Your task to perform on an android device: Search for hotels in Sydney Image 0: 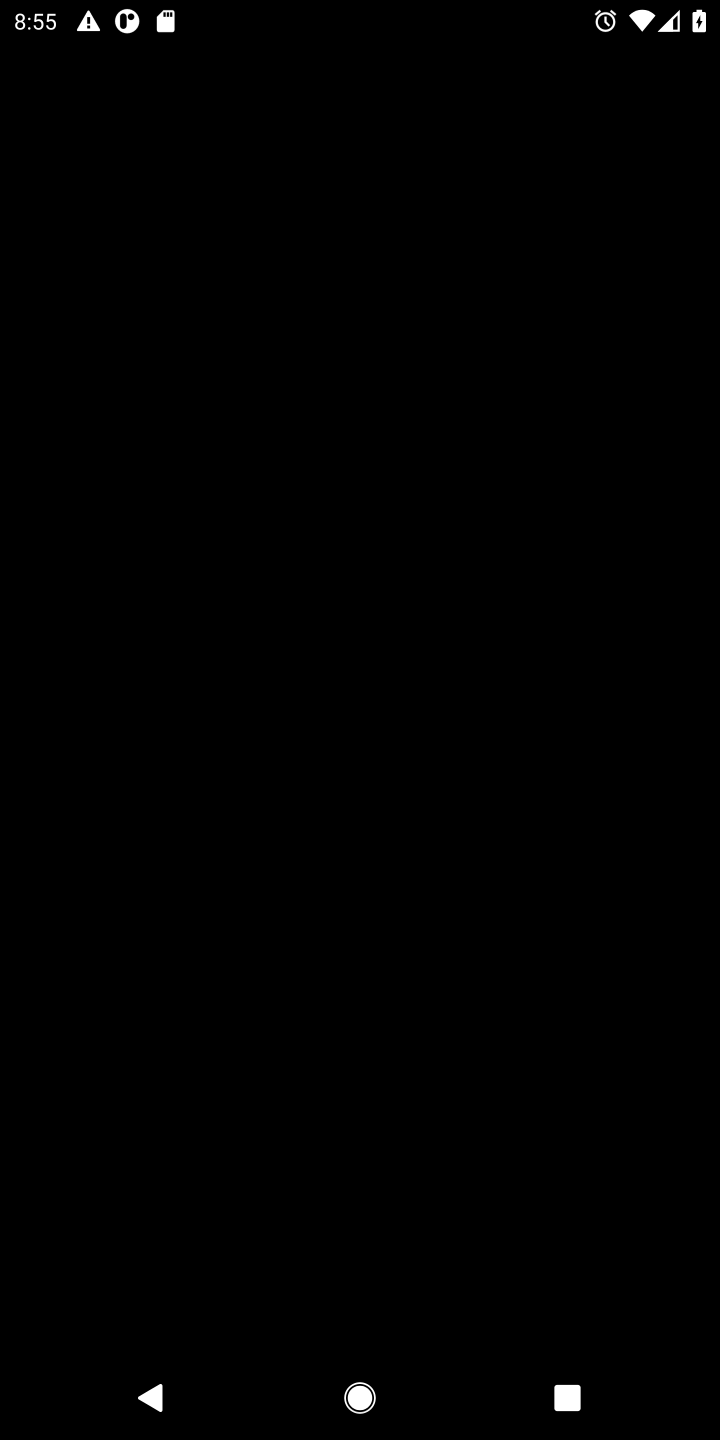
Step 0: press home button
Your task to perform on an android device: Search for hotels in Sydney Image 1: 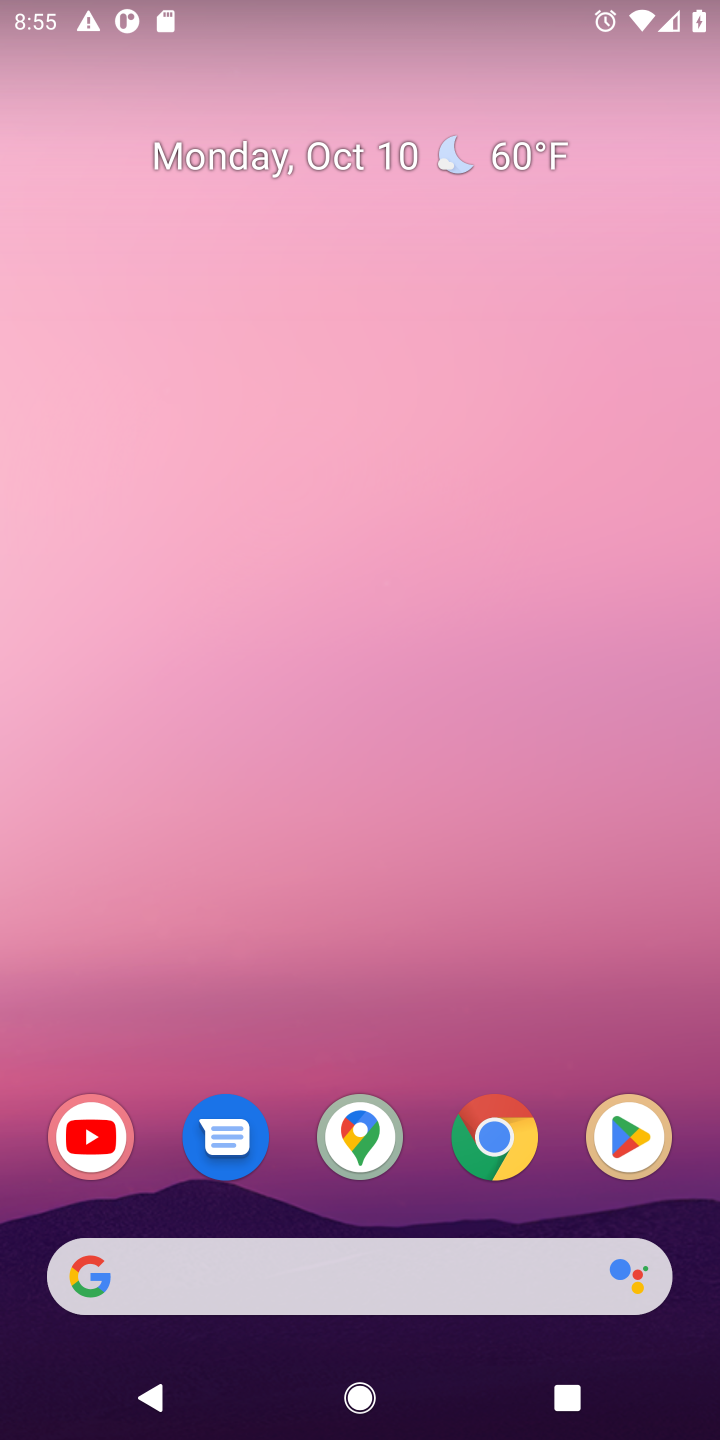
Step 1: click (487, 1145)
Your task to perform on an android device: Search for hotels in Sydney Image 2: 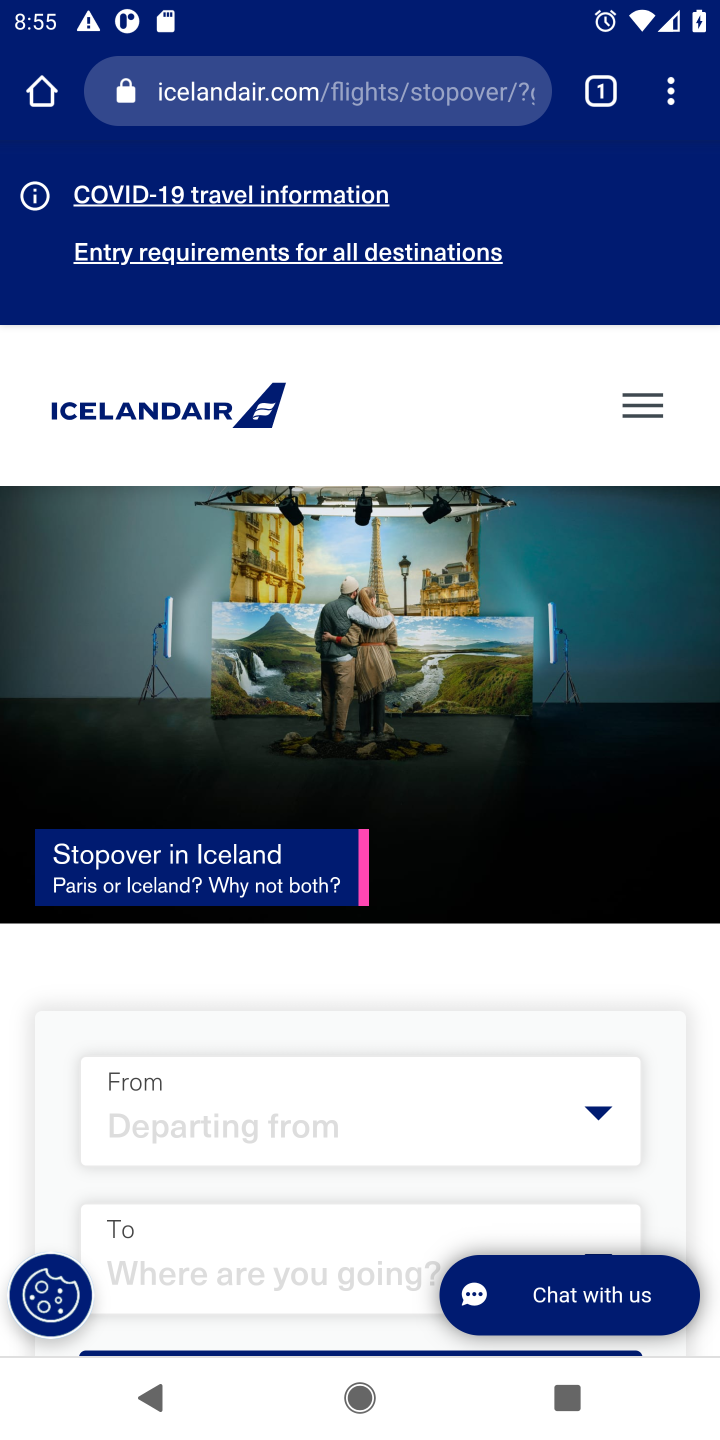
Step 2: click (339, 70)
Your task to perform on an android device: Search for hotels in Sydney Image 3: 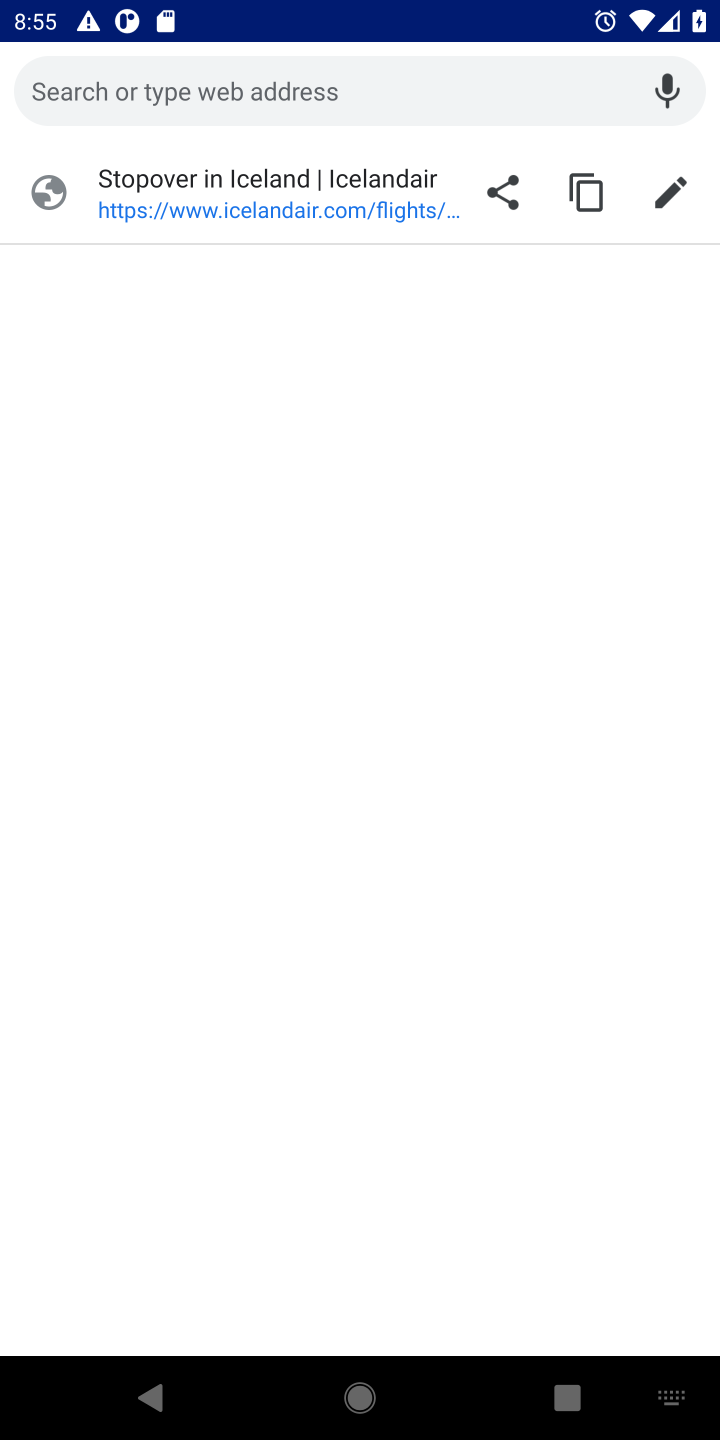
Step 3: type "hotels in sydney"
Your task to perform on an android device: Search for hotels in Sydney Image 4: 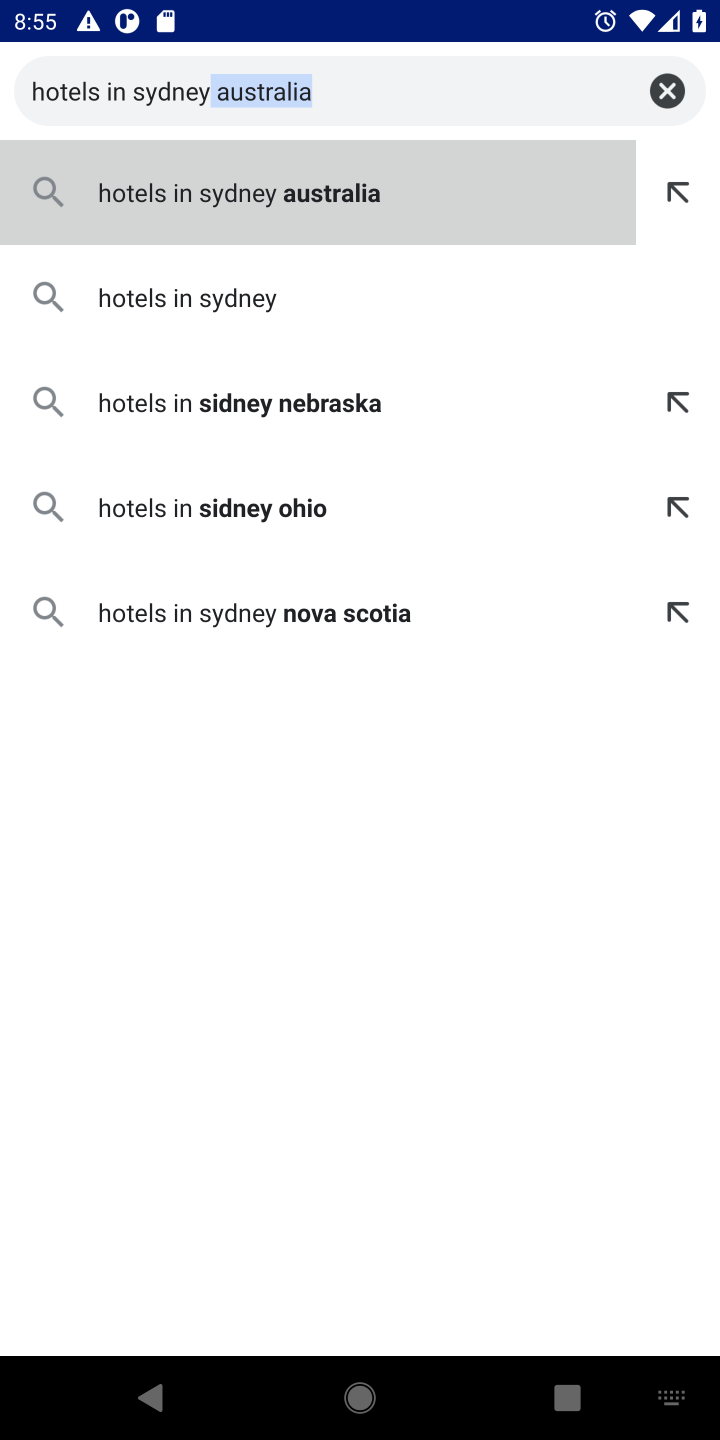
Step 4: click (133, 292)
Your task to perform on an android device: Search for hotels in Sydney Image 5: 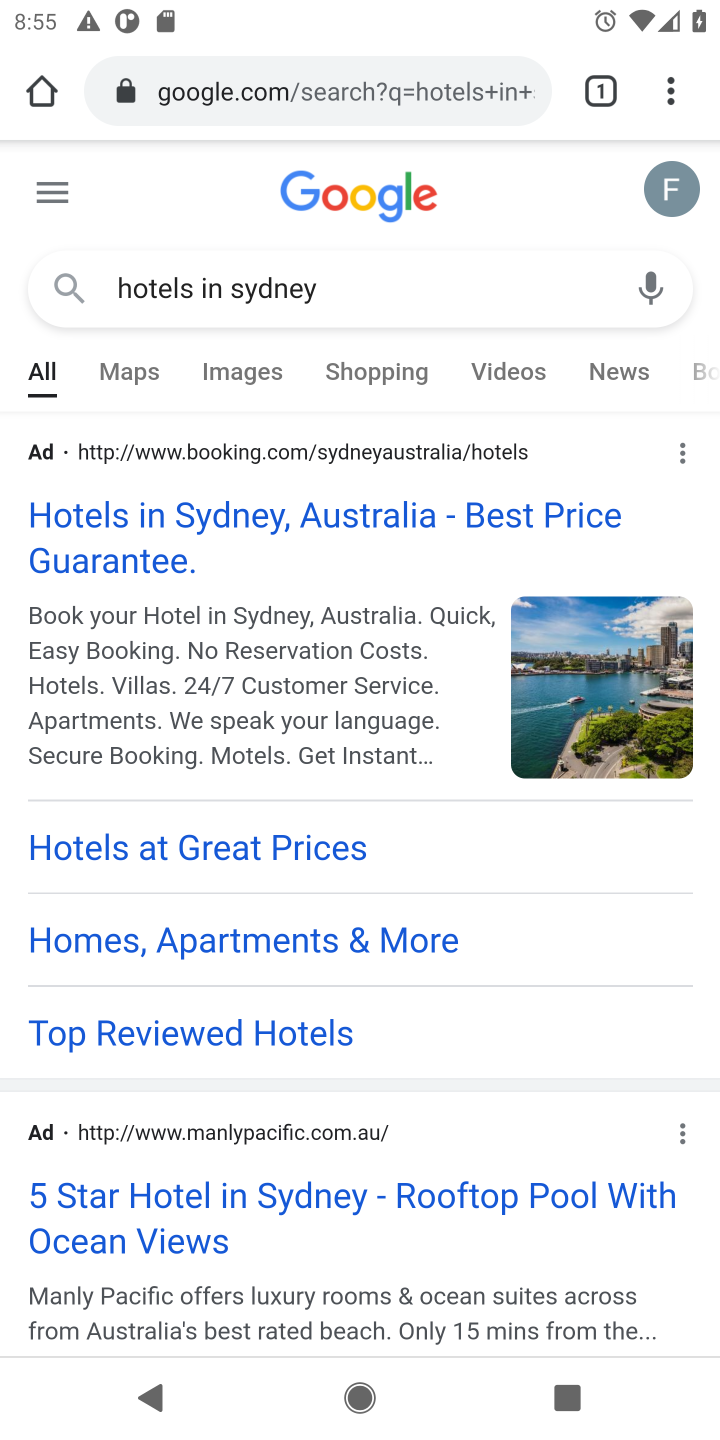
Step 5: click (109, 528)
Your task to perform on an android device: Search for hotels in Sydney Image 6: 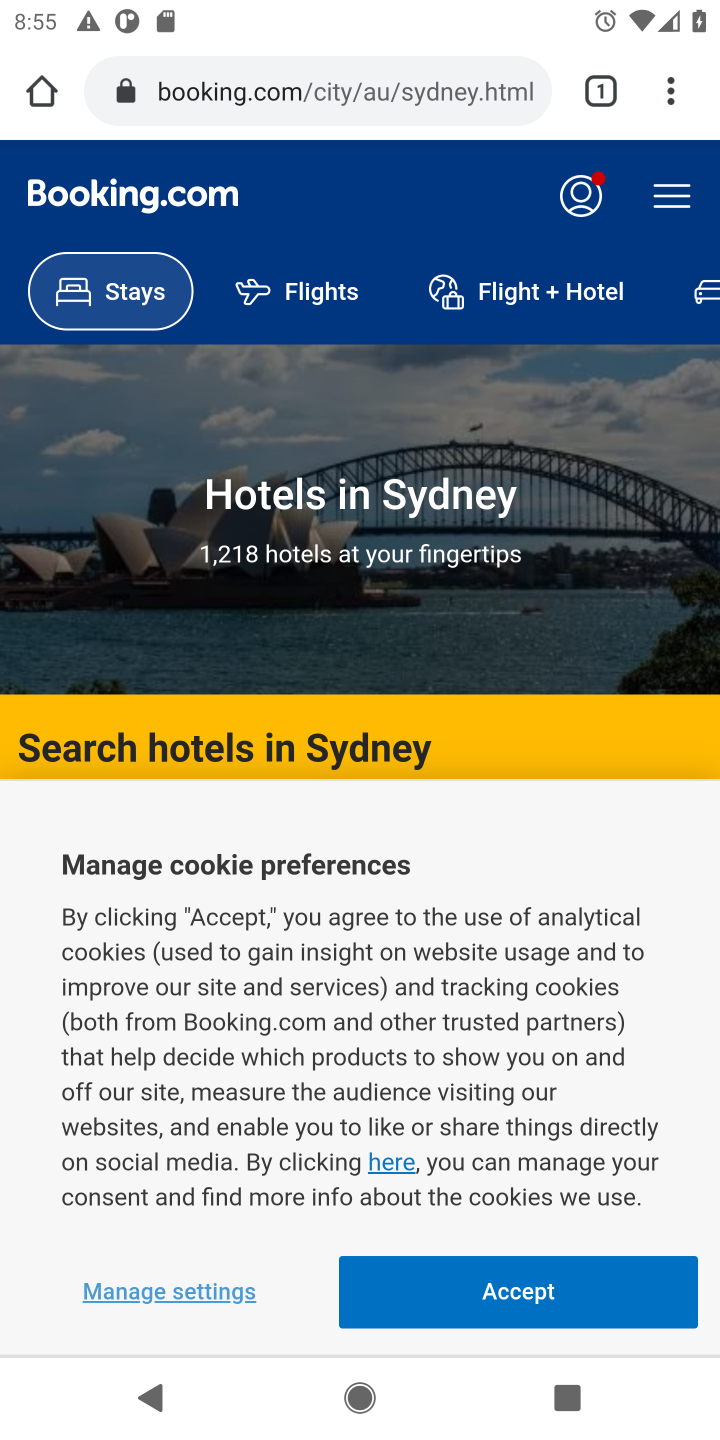
Step 6: click (510, 1304)
Your task to perform on an android device: Search for hotels in Sydney Image 7: 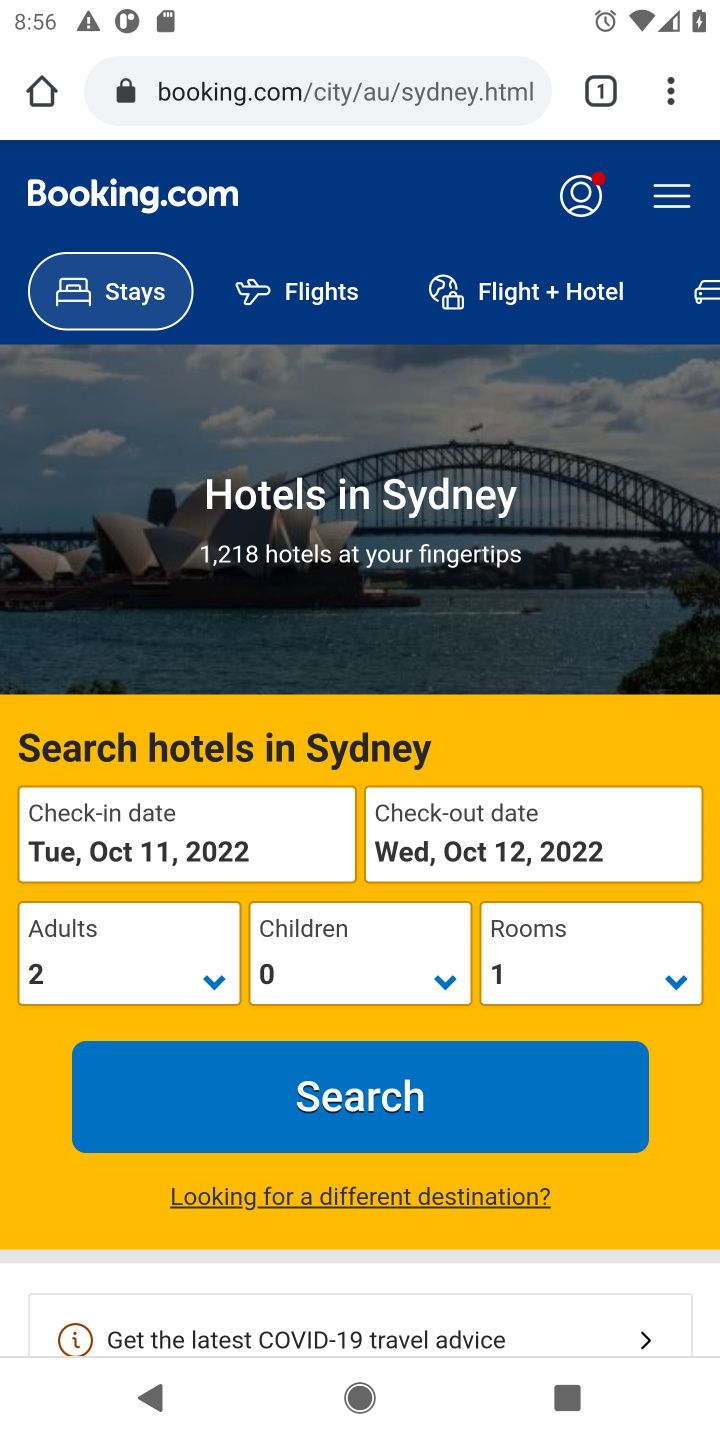
Step 7: click (358, 1103)
Your task to perform on an android device: Search for hotels in Sydney Image 8: 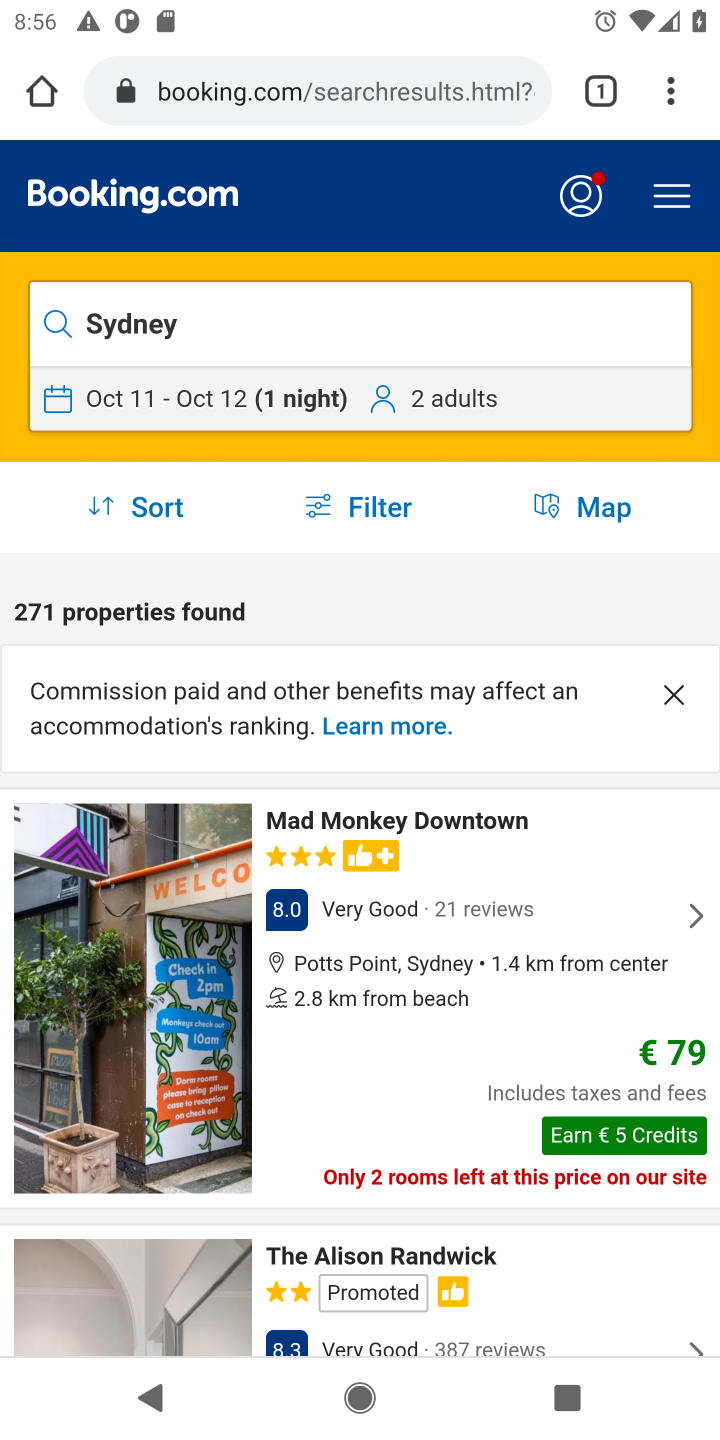
Step 8: task complete